Your task to perform on an android device: set the stopwatch Image 0: 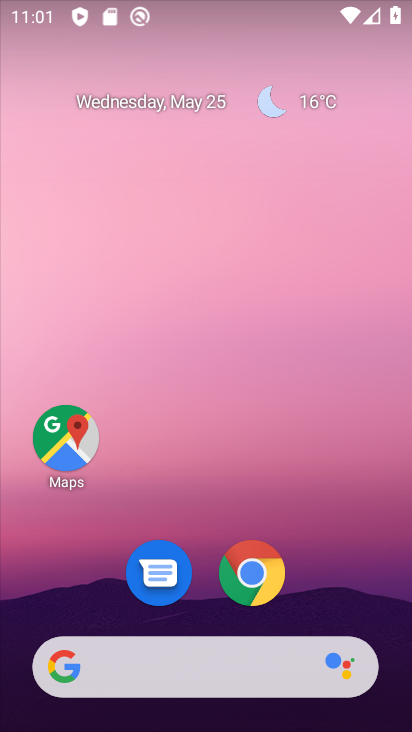
Step 0: drag from (322, 624) to (365, 3)
Your task to perform on an android device: set the stopwatch Image 1: 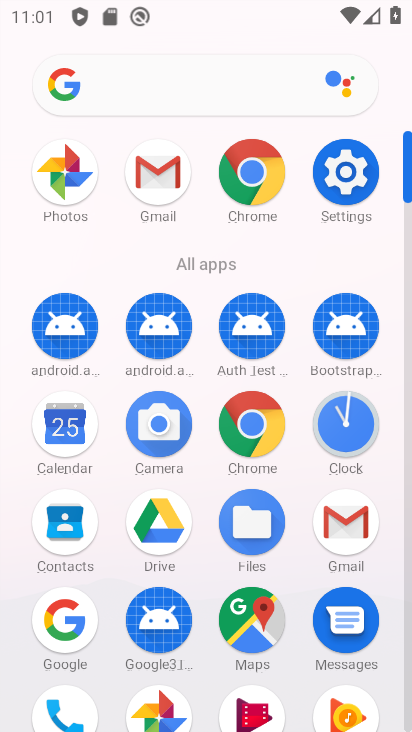
Step 1: click (342, 429)
Your task to perform on an android device: set the stopwatch Image 2: 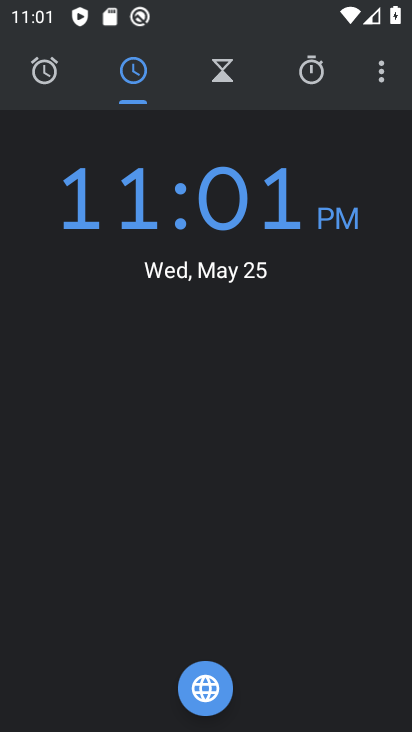
Step 2: click (314, 73)
Your task to perform on an android device: set the stopwatch Image 3: 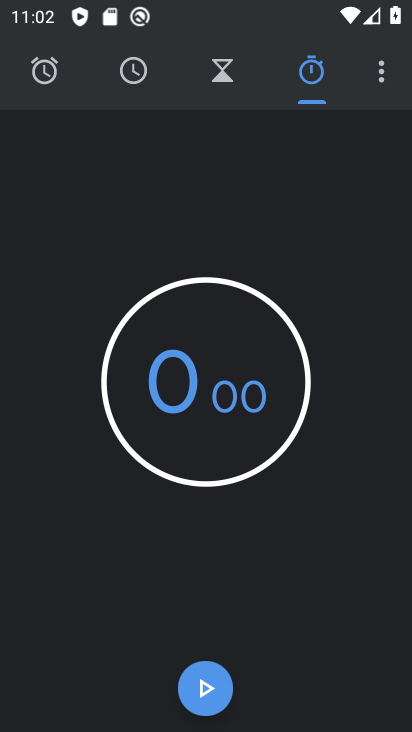
Step 3: click (208, 693)
Your task to perform on an android device: set the stopwatch Image 4: 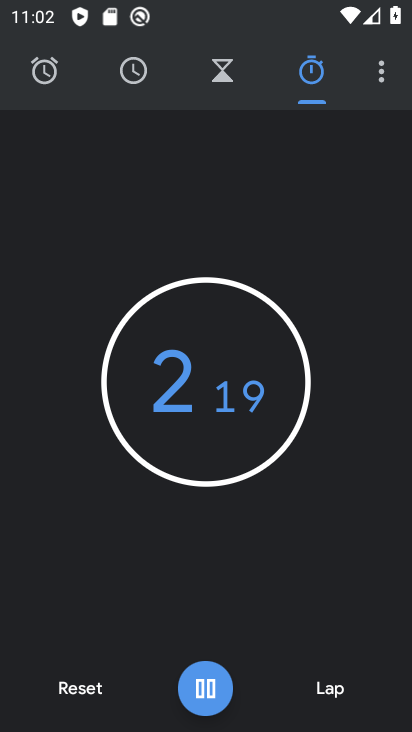
Step 4: click (208, 693)
Your task to perform on an android device: set the stopwatch Image 5: 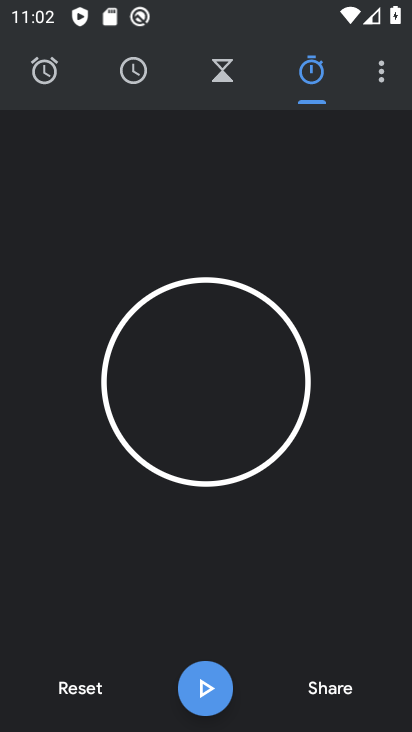
Step 5: task complete